Your task to perform on an android device: Open Amazon Image 0: 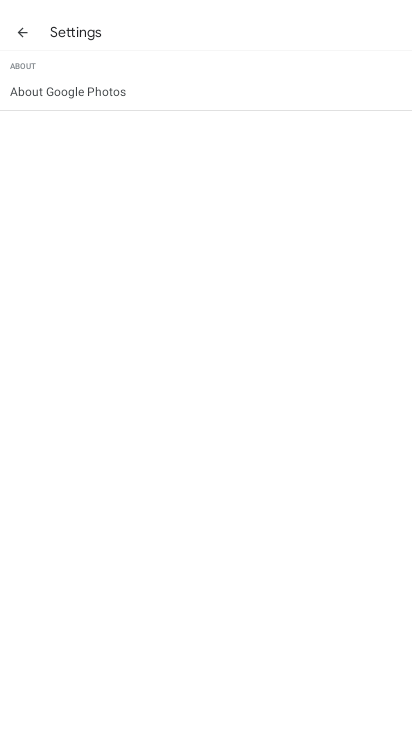
Step 0: press home button
Your task to perform on an android device: Open Amazon Image 1: 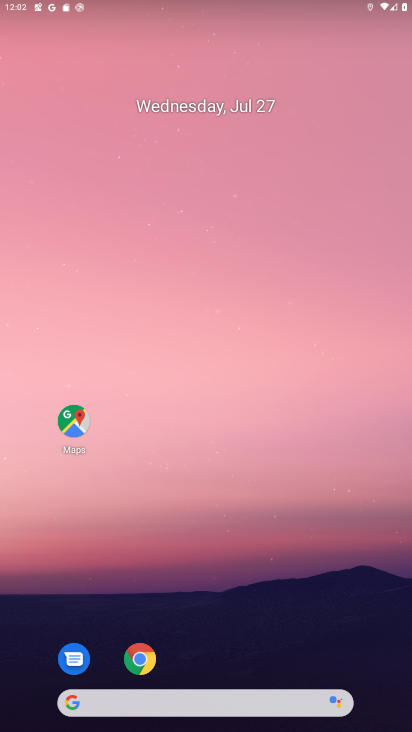
Step 1: drag from (242, 693) to (249, 0)
Your task to perform on an android device: Open Amazon Image 2: 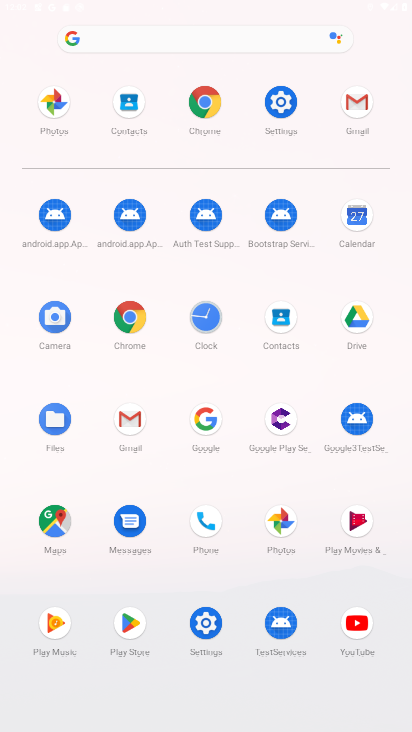
Step 2: click (125, 318)
Your task to perform on an android device: Open Amazon Image 3: 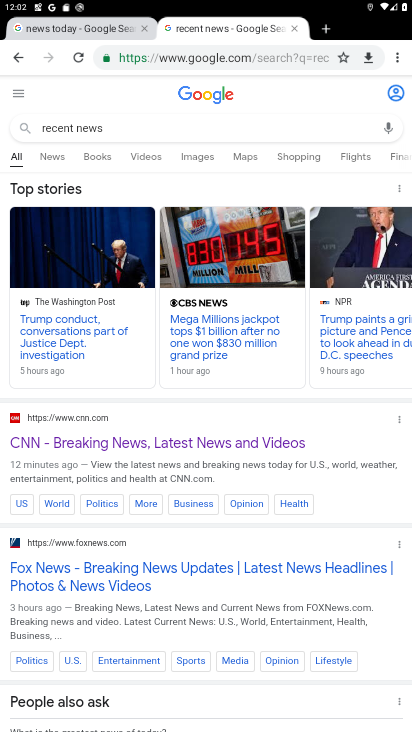
Step 3: click (240, 53)
Your task to perform on an android device: Open Amazon Image 4: 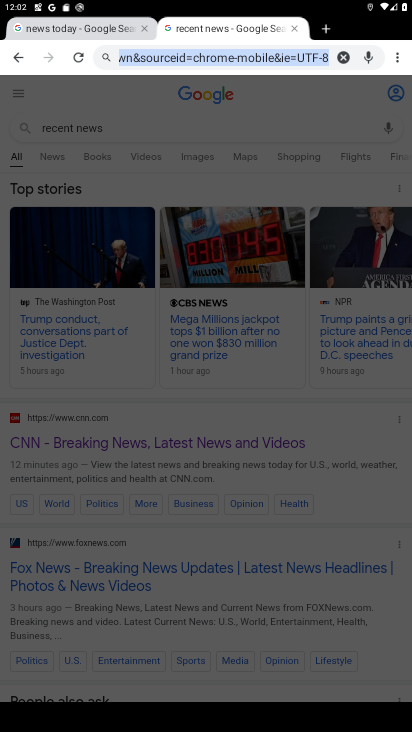
Step 4: type "amazon"
Your task to perform on an android device: Open Amazon Image 5: 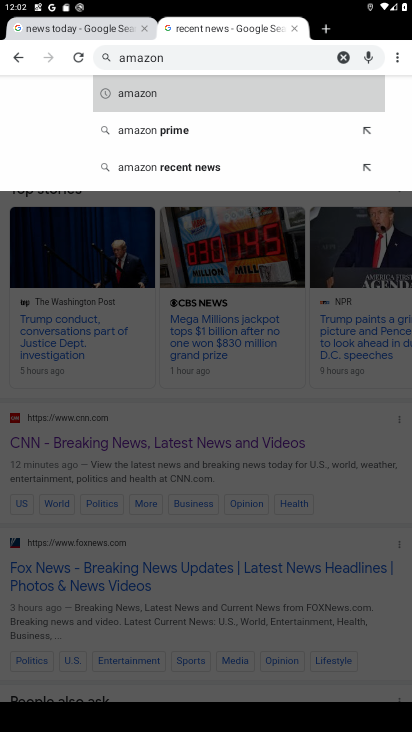
Step 5: click (184, 93)
Your task to perform on an android device: Open Amazon Image 6: 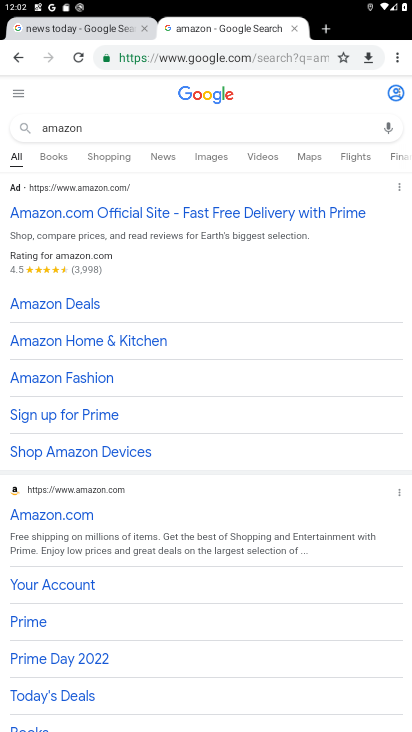
Step 6: task complete